Your task to perform on an android device: Go to privacy settings Image 0: 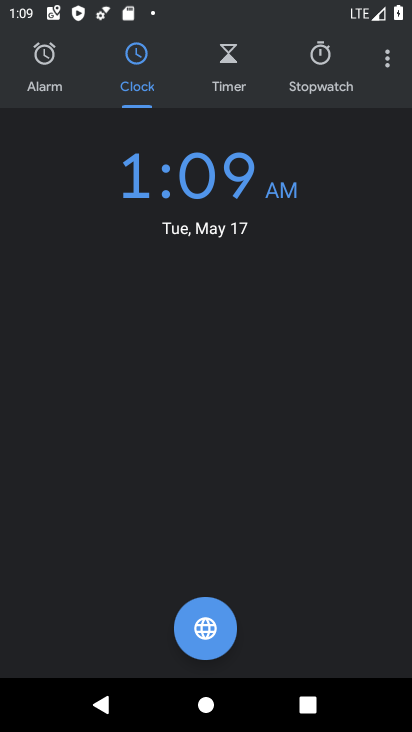
Step 0: press home button
Your task to perform on an android device: Go to privacy settings Image 1: 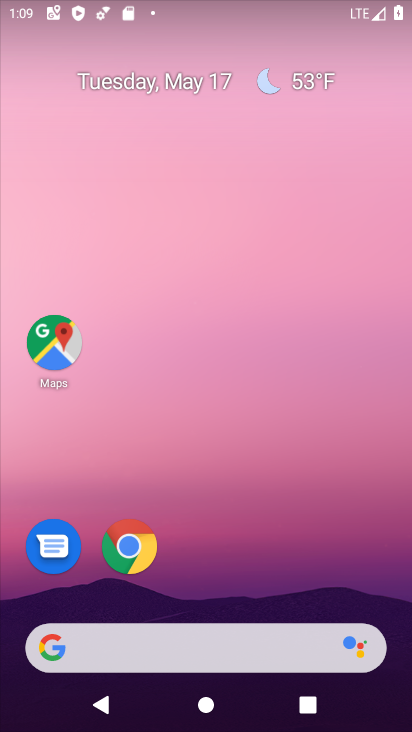
Step 1: drag from (226, 593) to (238, 175)
Your task to perform on an android device: Go to privacy settings Image 2: 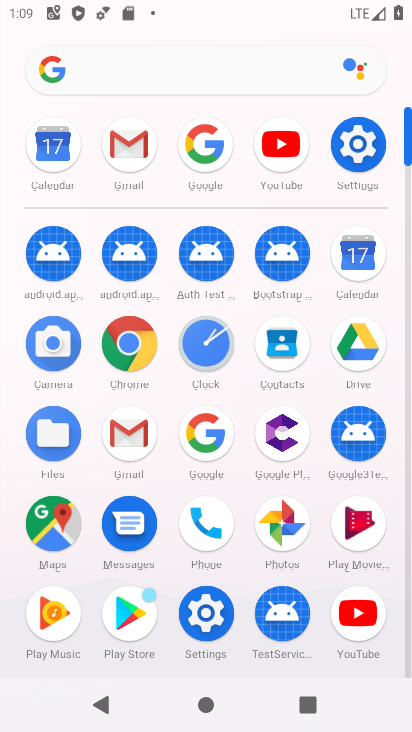
Step 2: click (357, 123)
Your task to perform on an android device: Go to privacy settings Image 3: 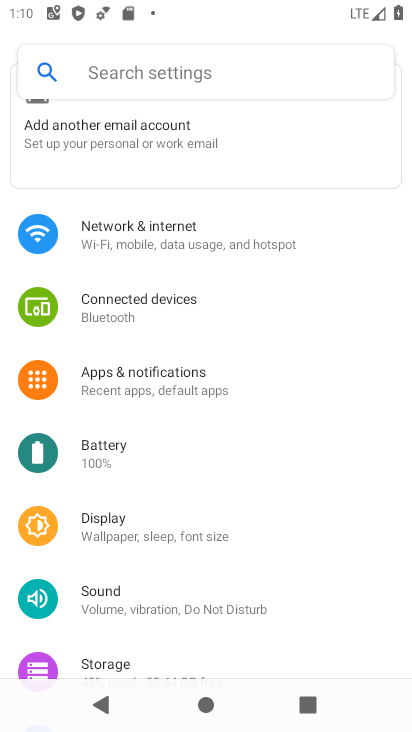
Step 3: drag from (142, 597) to (176, 384)
Your task to perform on an android device: Go to privacy settings Image 4: 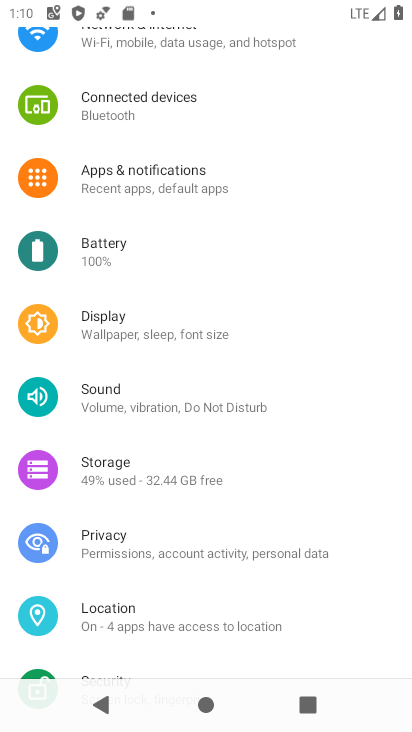
Step 4: click (141, 565)
Your task to perform on an android device: Go to privacy settings Image 5: 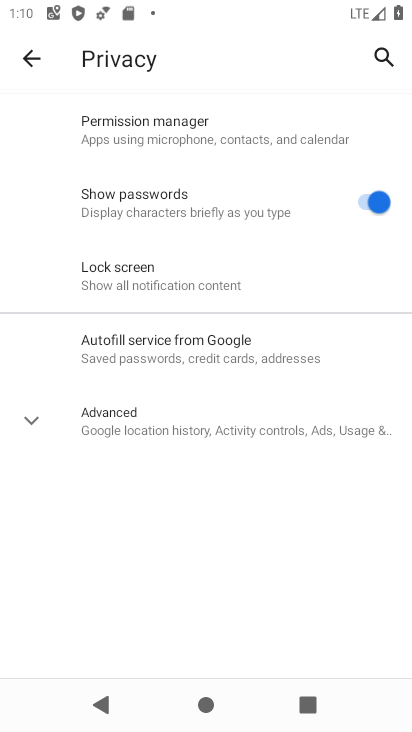
Step 5: task complete